Your task to perform on an android device: Open Youtube and go to the subscriptions tab Image 0: 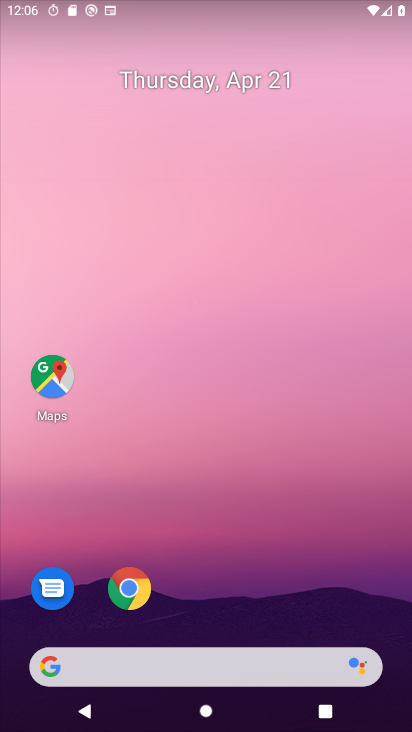
Step 0: click (229, 83)
Your task to perform on an android device: Open Youtube and go to the subscriptions tab Image 1: 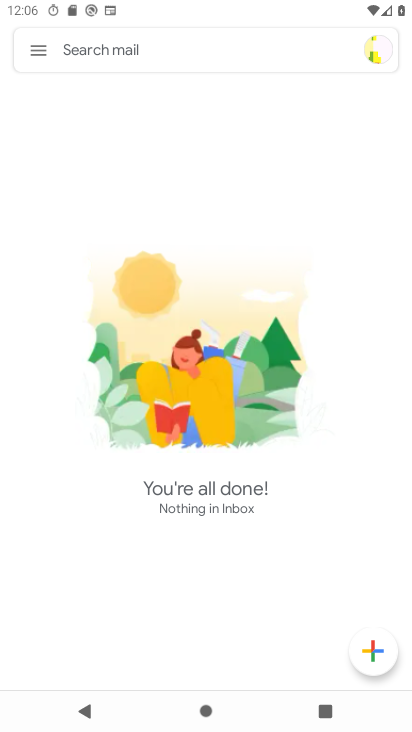
Step 1: press home button
Your task to perform on an android device: Open Youtube and go to the subscriptions tab Image 2: 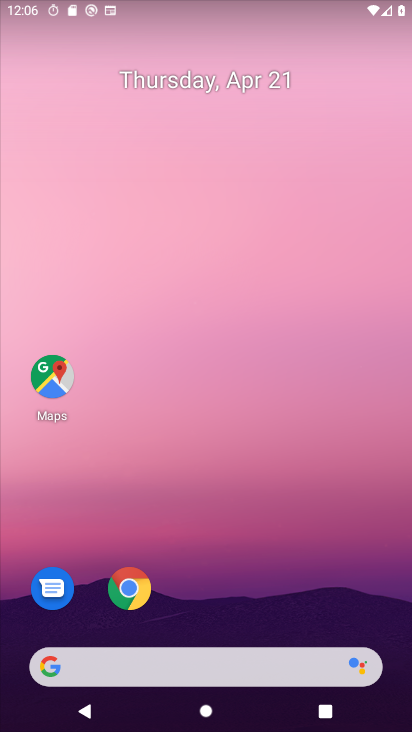
Step 2: drag from (224, 622) to (245, 6)
Your task to perform on an android device: Open Youtube and go to the subscriptions tab Image 3: 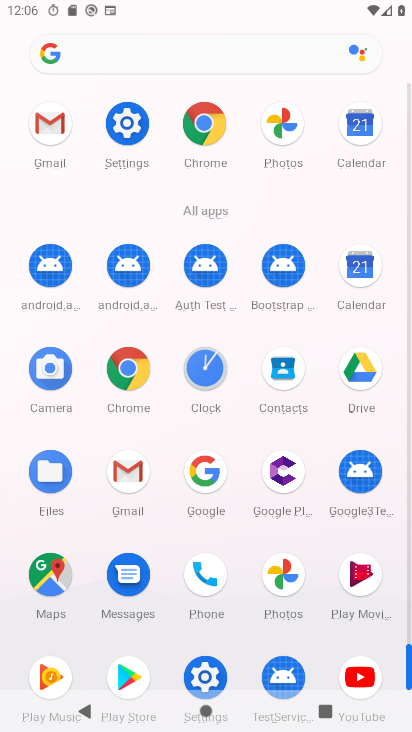
Step 3: click (360, 669)
Your task to perform on an android device: Open Youtube and go to the subscriptions tab Image 4: 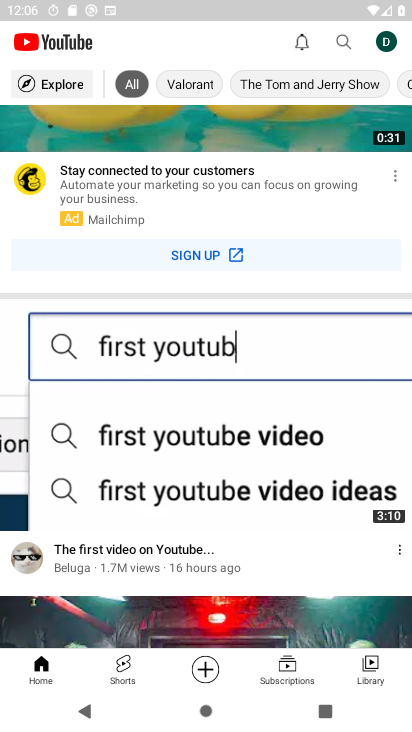
Step 4: click (282, 658)
Your task to perform on an android device: Open Youtube and go to the subscriptions tab Image 5: 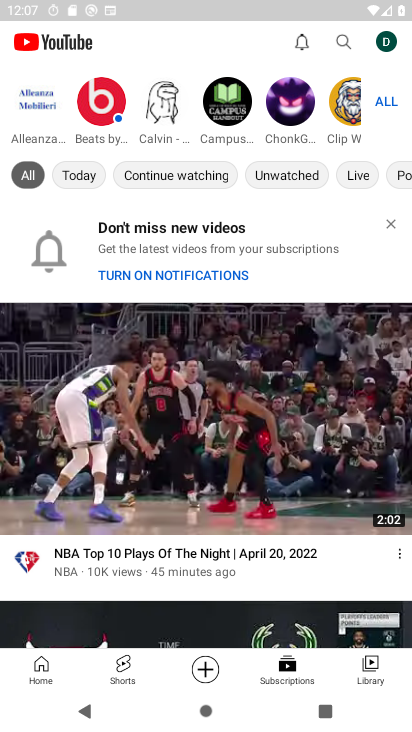
Step 5: task complete